Your task to perform on an android device: toggle translation in the chrome app Image 0: 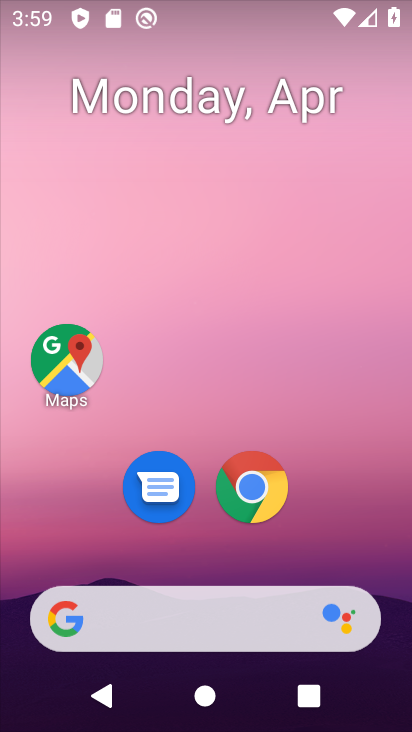
Step 0: drag from (349, 549) to (342, 71)
Your task to perform on an android device: toggle translation in the chrome app Image 1: 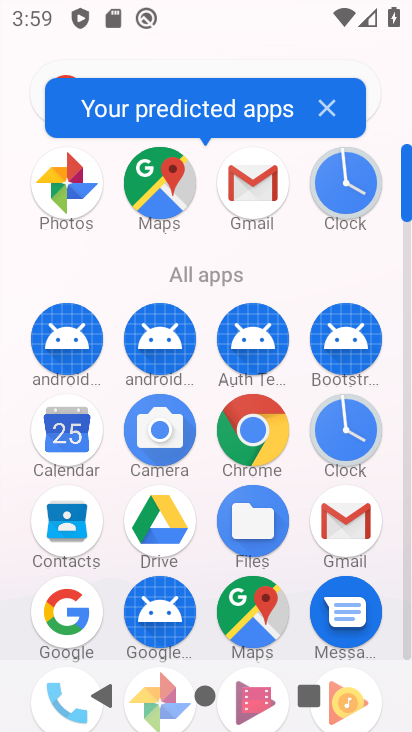
Step 1: click (275, 443)
Your task to perform on an android device: toggle translation in the chrome app Image 2: 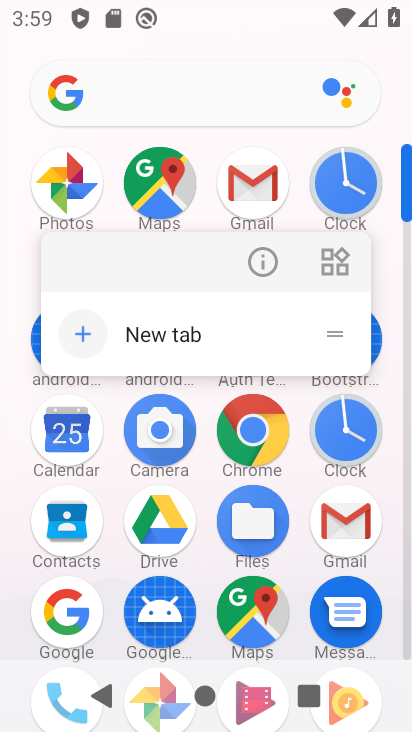
Step 2: click (275, 443)
Your task to perform on an android device: toggle translation in the chrome app Image 3: 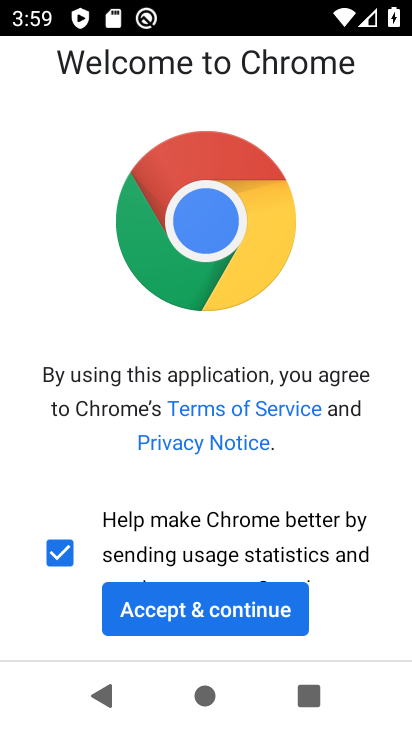
Step 3: click (231, 613)
Your task to perform on an android device: toggle translation in the chrome app Image 4: 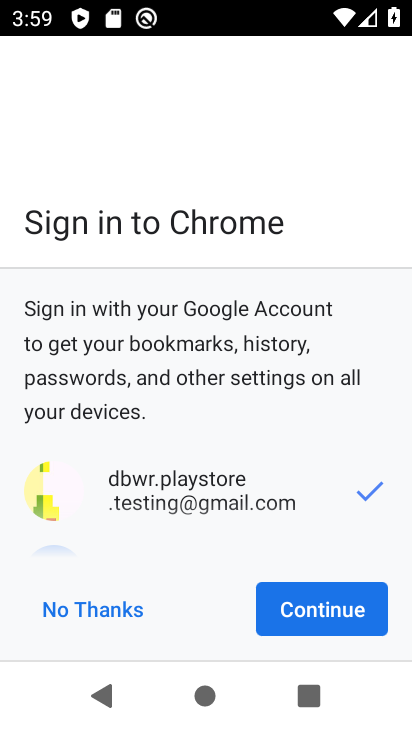
Step 4: click (294, 603)
Your task to perform on an android device: toggle translation in the chrome app Image 5: 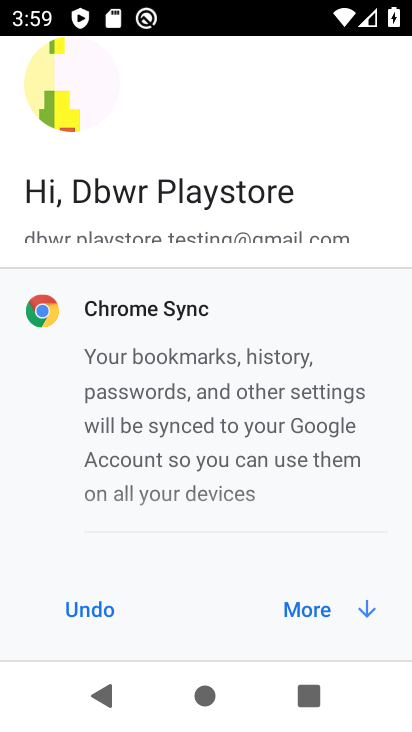
Step 5: click (306, 607)
Your task to perform on an android device: toggle translation in the chrome app Image 6: 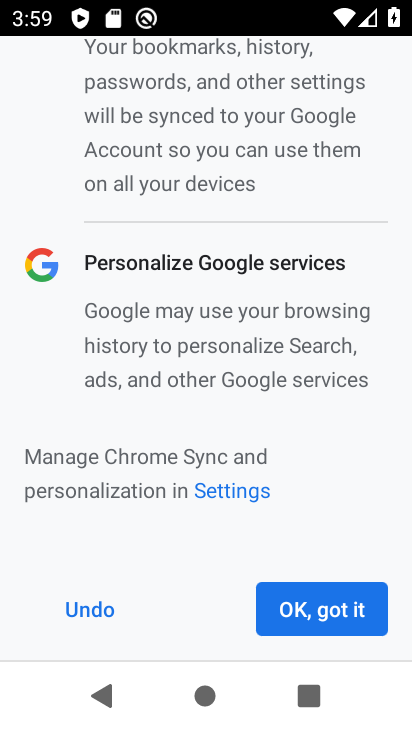
Step 6: click (306, 607)
Your task to perform on an android device: toggle translation in the chrome app Image 7: 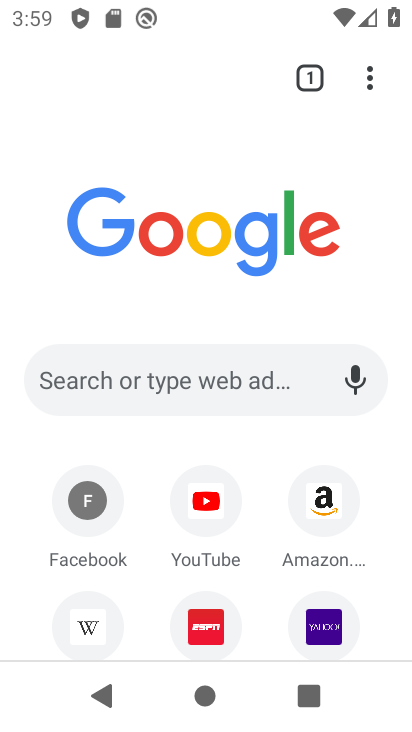
Step 7: click (369, 85)
Your task to perform on an android device: toggle translation in the chrome app Image 8: 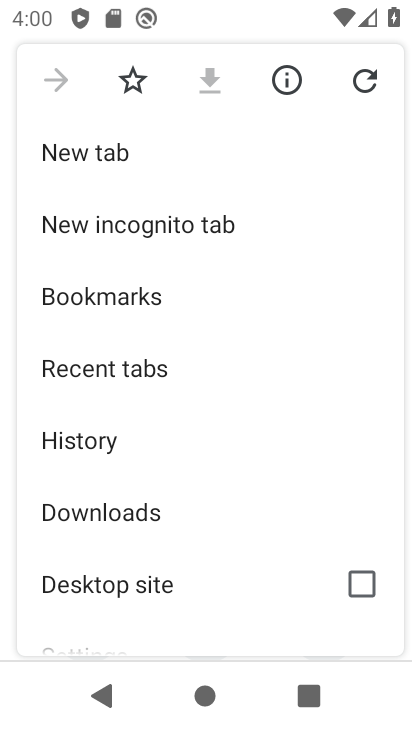
Step 8: drag from (287, 574) to (284, 398)
Your task to perform on an android device: toggle translation in the chrome app Image 9: 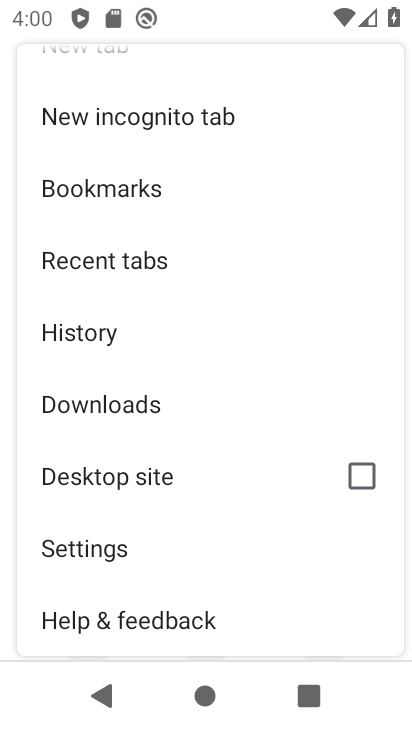
Step 9: drag from (287, 566) to (269, 410)
Your task to perform on an android device: toggle translation in the chrome app Image 10: 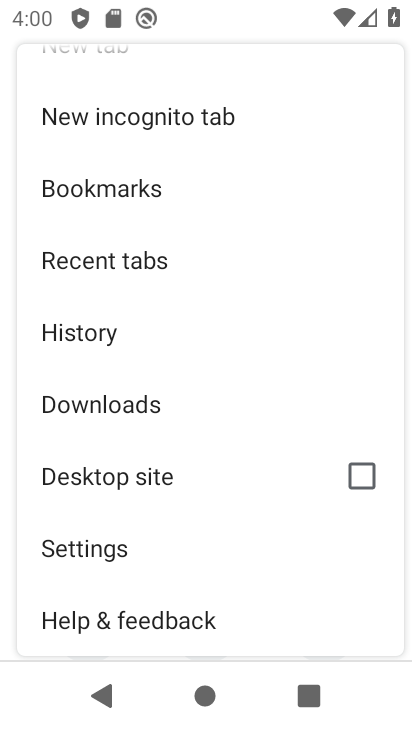
Step 10: click (143, 555)
Your task to perform on an android device: toggle translation in the chrome app Image 11: 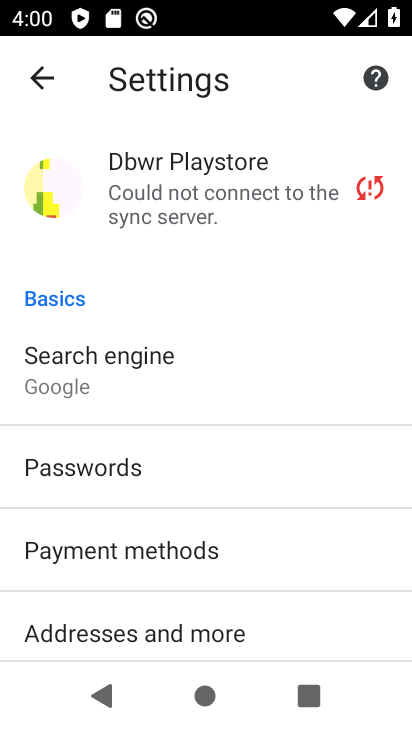
Step 11: drag from (317, 595) to (324, 439)
Your task to perform on an android device: toggle translation in the chrome app Image 12: 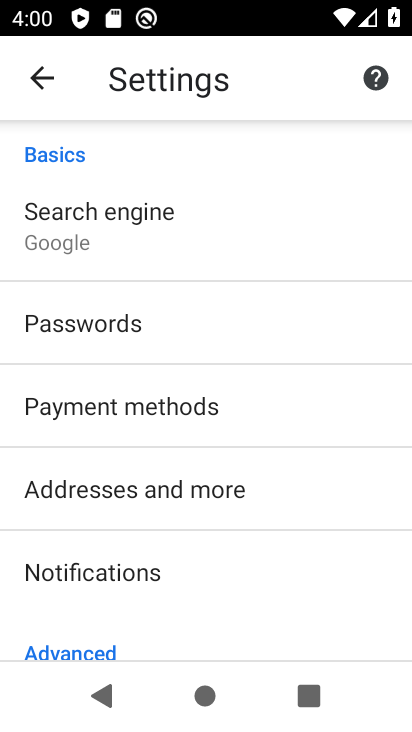
Step 12: drag from (328, 596) to (331, 413)
Your task to perform on an android device: toggle translation in the chrome app Image 13: 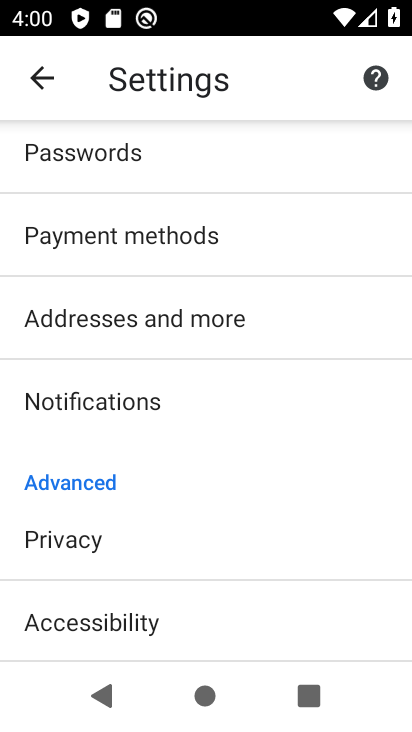
Step 13: drag from (337, 592) to (344, 454)
Your task to perform on an android device: toggle translation in the chrome app Image 14: 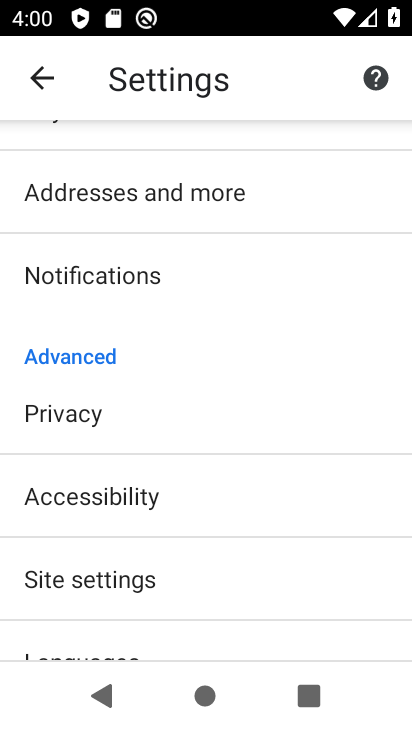
Step 14: drag from (354, 612) to (357, 490)
Your task to perform on an android device: toggle translation in the chrome app Image 15: 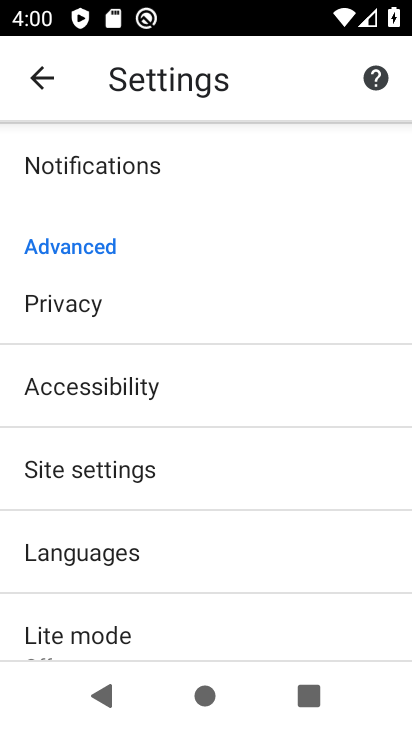
Step 15: drag from (341, 621) to (343, 335)
Your task to perform on an android device: toggle translation in the chrome app Image 16: 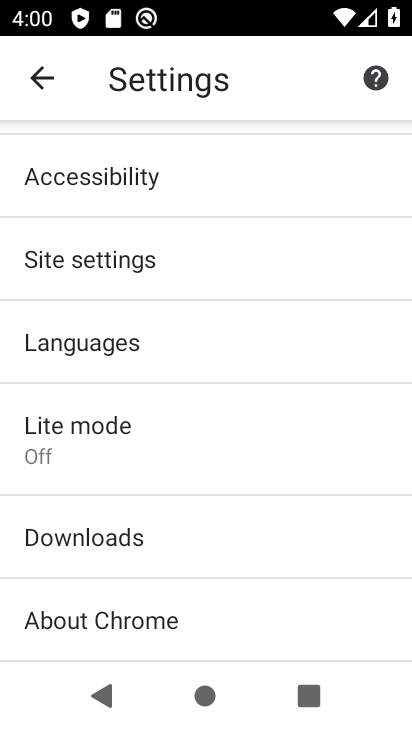
Step 16: click (288, 352)
Your task to perform on an android device: toggle translation in the chrome app Image 17: 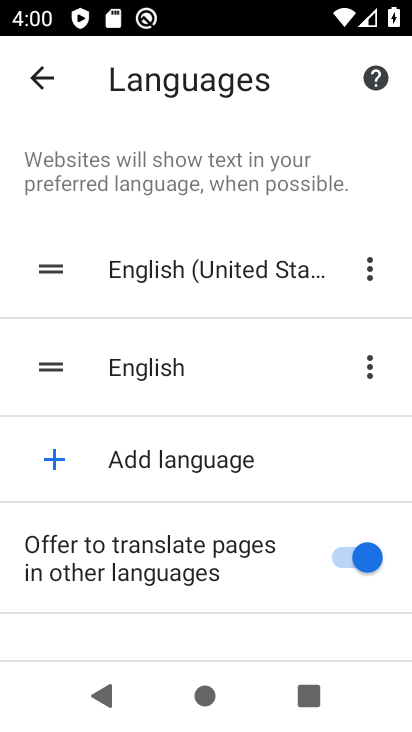
Step 17: click (362, 553)
Your task to perform on an android device: toggle translation in the chrome app Image 18: 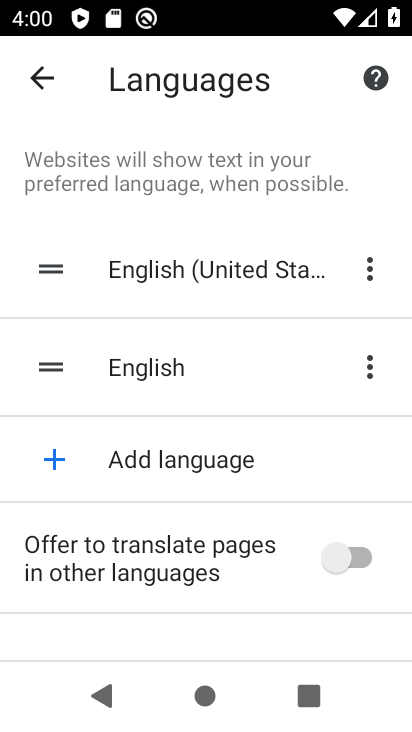
Step 18: task complete